Your task to perform on an android device: turn notification dots on Image 0: 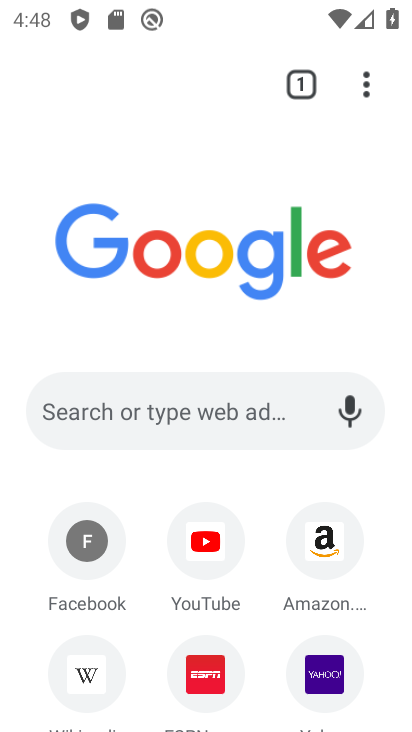
Step 0: press home button
Your task to perform on an android device: turn notification dots on Image 1: 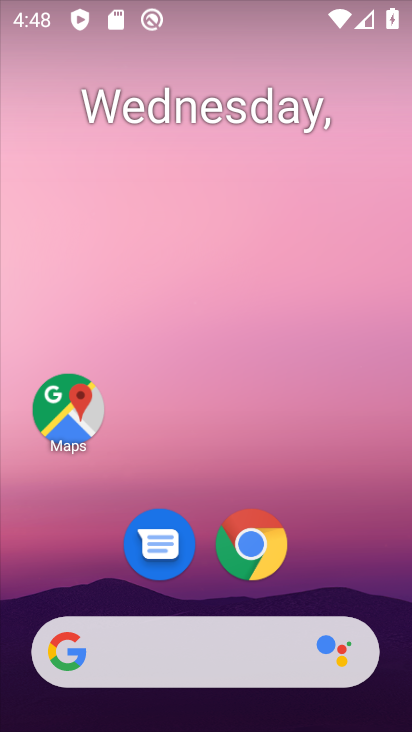
Step 1: drag from (226, 585) to (206, 40)
Your task to perform on an android device: turn notification dots on Image 2: 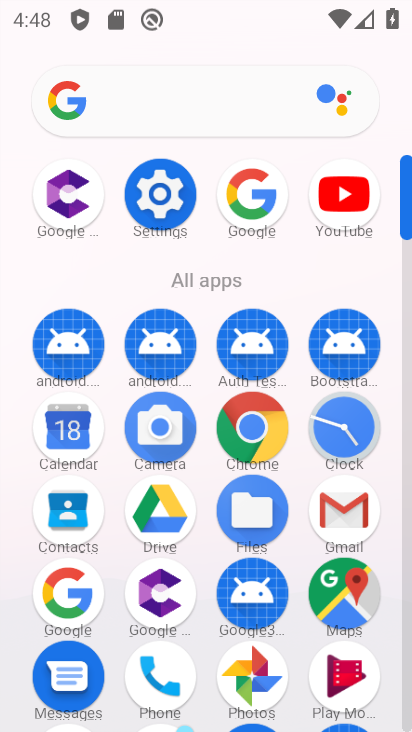
Step 2: click (152, 190)
Your task to perform on an android device: turn notification dots on Image 3: 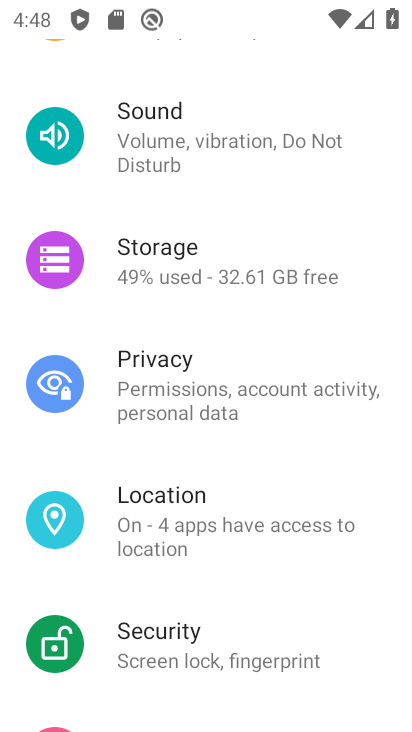
Step 3: drag from (186, 196) to (198, 589)
Your task to perform on an android device: turn notification dots on Image 4: 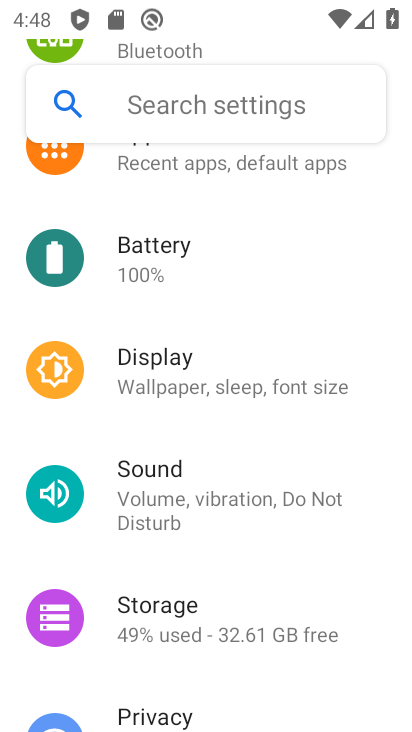
Step 4: drag from (218, 217) to (225, 639)
Your task to perform on an android device: turn notification dots on Image 5: 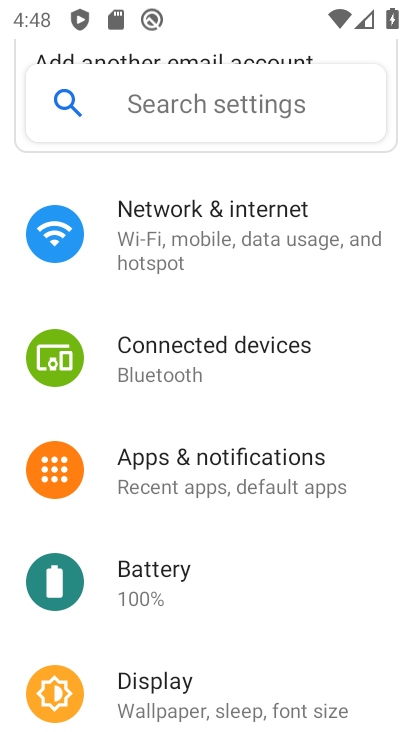
Step 5: click (220, 476)
Your task to perform on an android device: turn notification dots on Image 6: 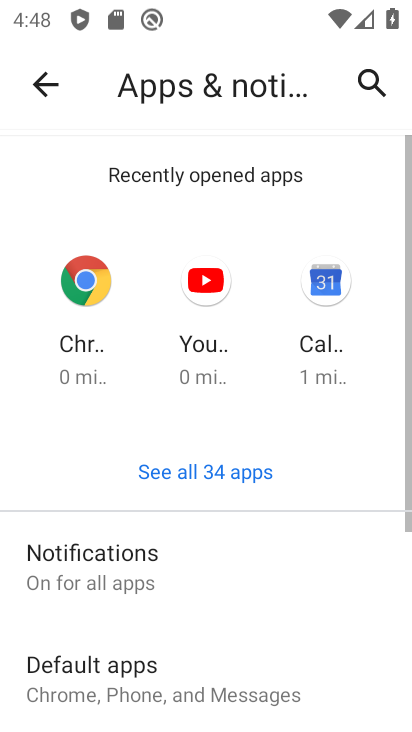
Step 6: click (173, 547)
Your task to perform on an android device: turn notification dots on Image 7: 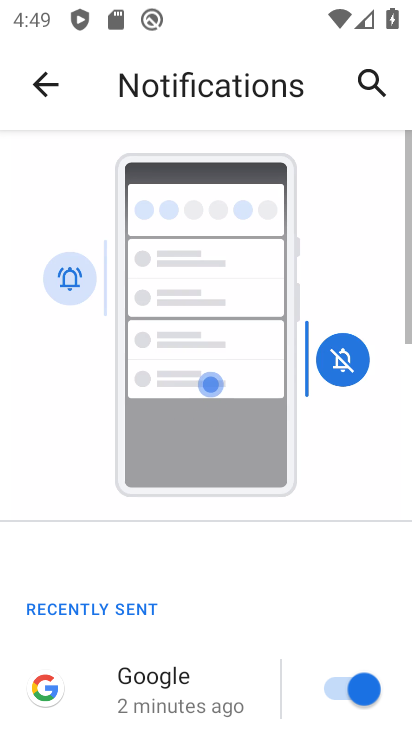
Step 7: drag from (209, 592) to (260, 6)
Your task to perform on an android device: turn notification dots on Image 8: 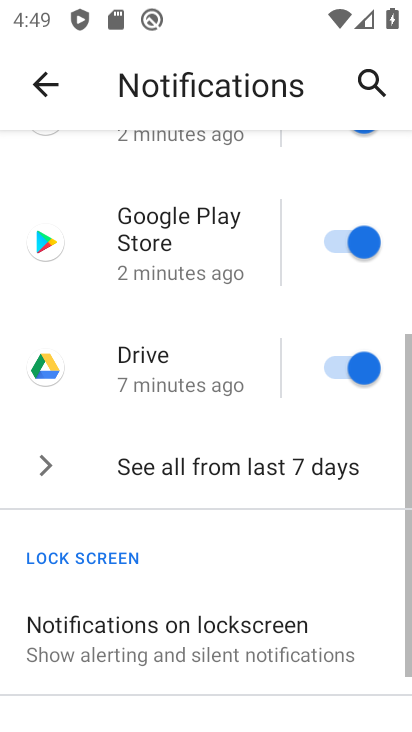
Step 8: drag from (277, 618) to (336, 0)
Your task to perform on an android device: turn notification dots on Image 9: 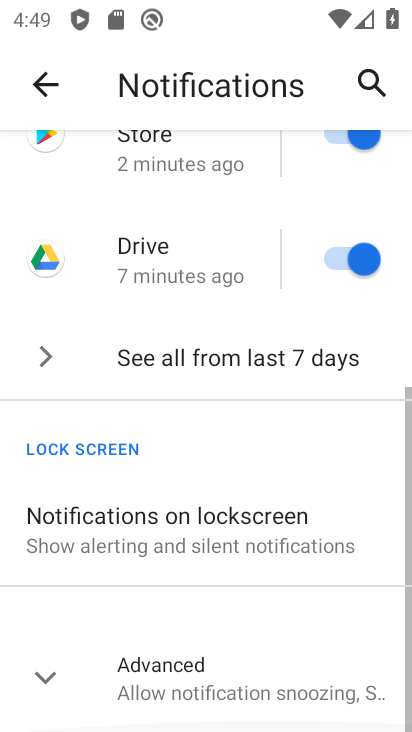
Step 9: click (202, 659)
Your task to perform on an android device: turn notification dots on Image 10: 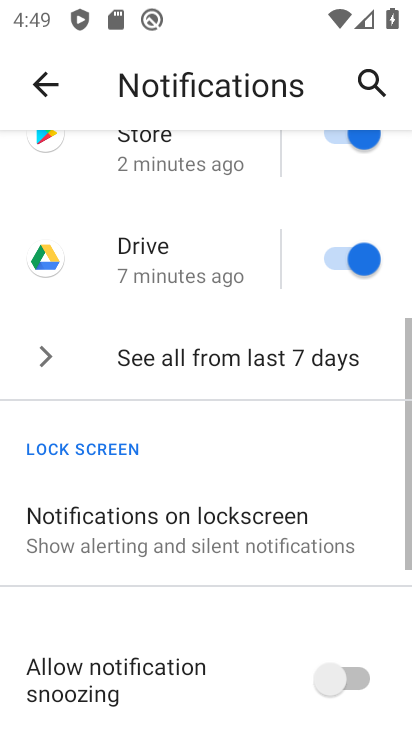
Step 10: task complete